Your task to perform on an android device: What's on my calendar today? Image 0: 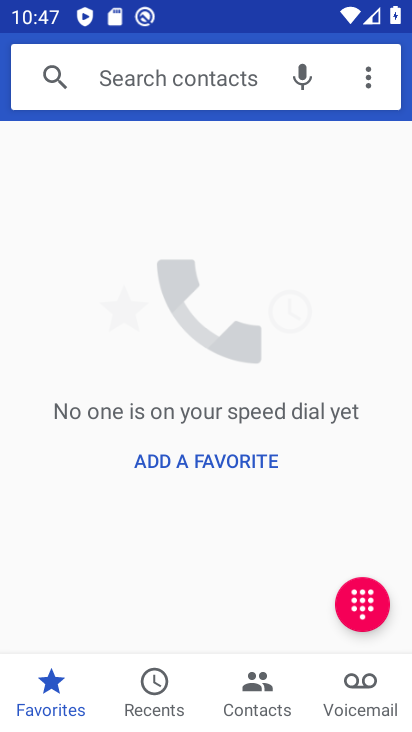
Step 0: press home button
Your task to perform on an android device: What's on my calendar today? Image 1: 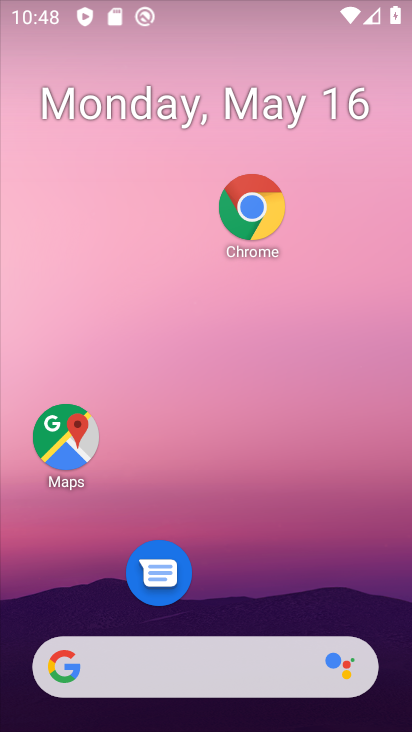
Step 1: drag from (263, 680) to (218, 122)
Your task to perform on an android device: What's on my calendar today? Image 2: 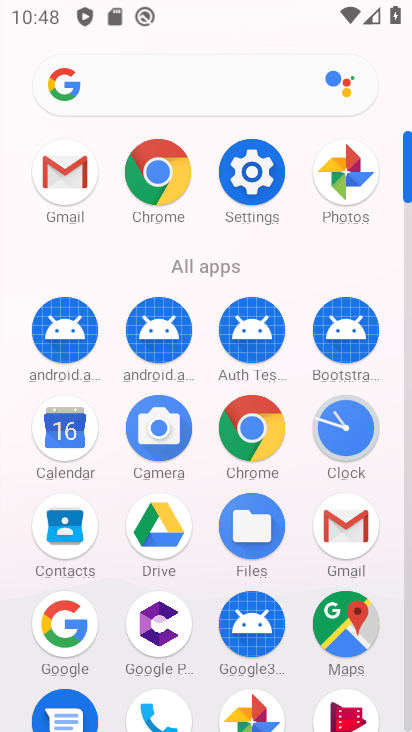
Step 2: click (64, 432)
Your task to perform on an android device: What's on my calendar today? Image 3: 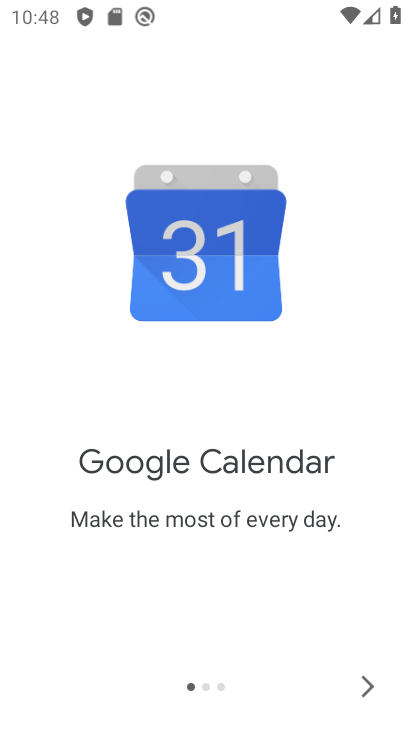
Step 3: click (368, 682)
Your task to perform on an android device: What's on my calendar today? Image 4: 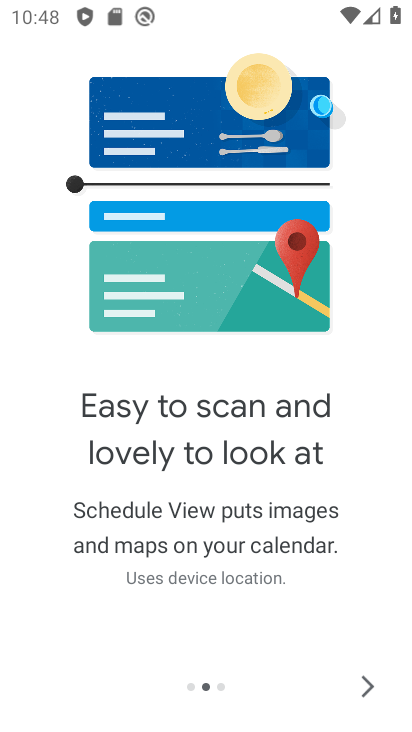
Step 4: click (368, 682)
Your task to perform on an android device: What's on my calendar today? Image 5: 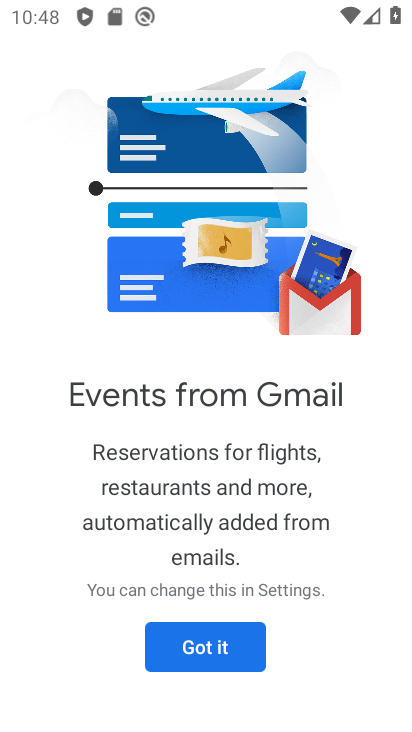
Step 5: click (257, 656)
Your task to perform on an android device: What's on my calendar today? Image 6: 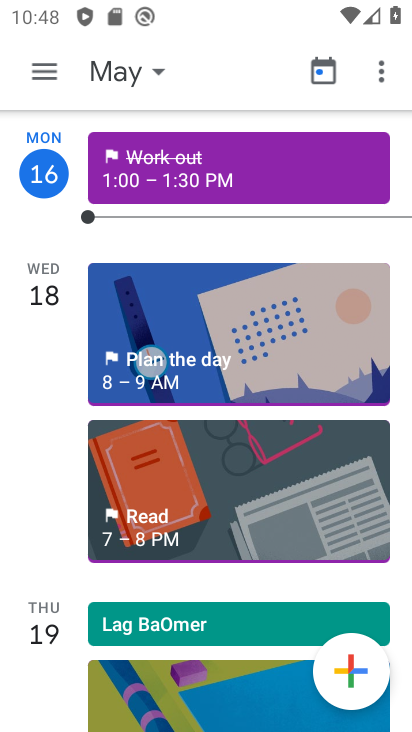
Step 6: click (151, 70)
Your task to perform on an android device: What's on my calendar today? Image 7: 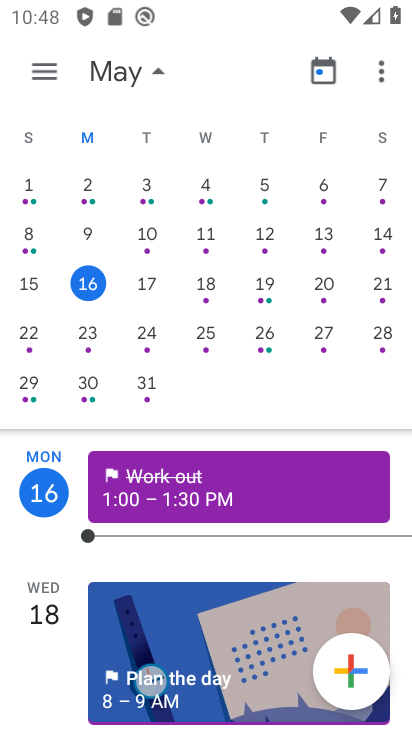
Step 7: click (142, 272)
Your task to perform on an android device: What's on my calendar today? Image 8: 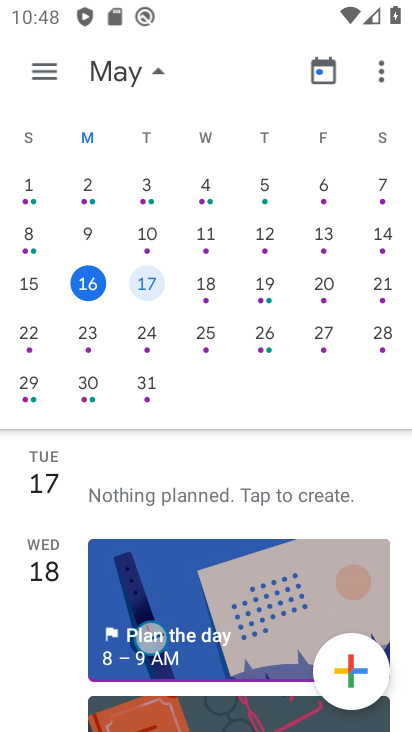
Step 8: task complete